Your task to perform on an android device: move an email to a new category in the gmail app Image 0: 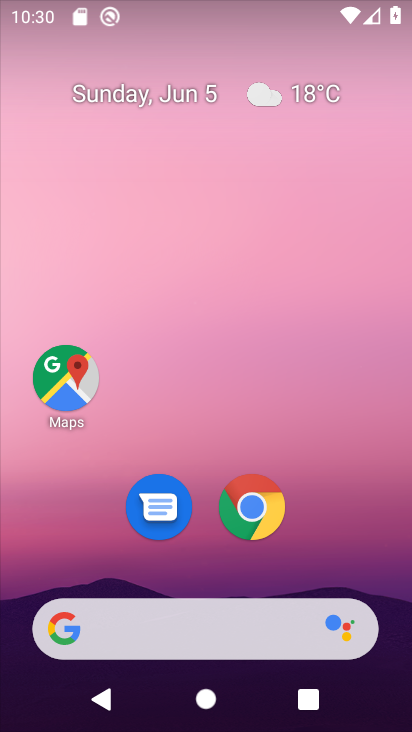
Step 0: drag from (202, 575) to (286, 2)
Your task to perform on an android device: move an email to a new category in the gmail app Image 1: 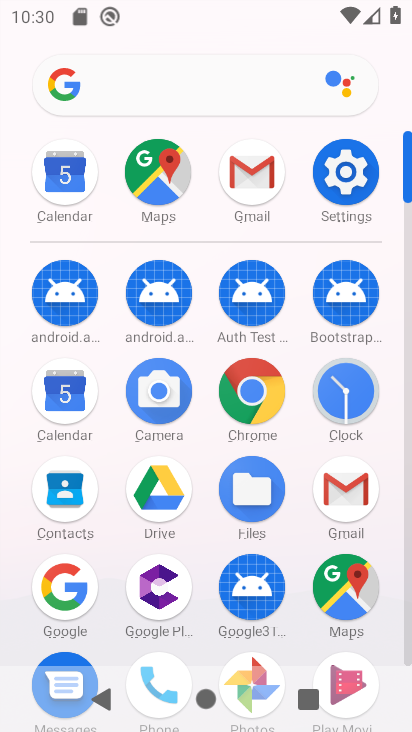
Step 1: click (344, 494)
Your task to perform on an android device: move an email to a new category in the gmail app Image 2: 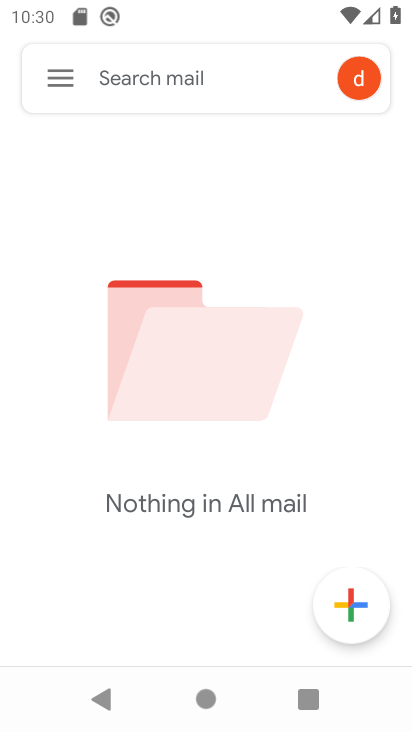
Step 2: task complete